Your task to perform on an android device: Search for vegetarian restaurants on Maps Image 0: 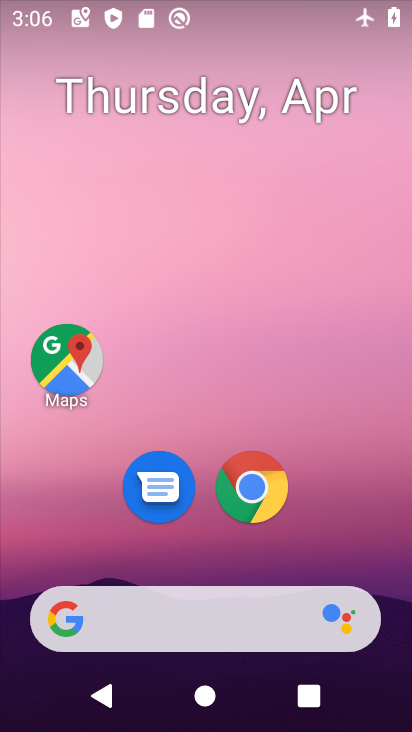
Step 0: drag from (229, 566) to (257, 63)
Your task to perform on an android device: Search for vegetarian restaurants on Maps Image 1: 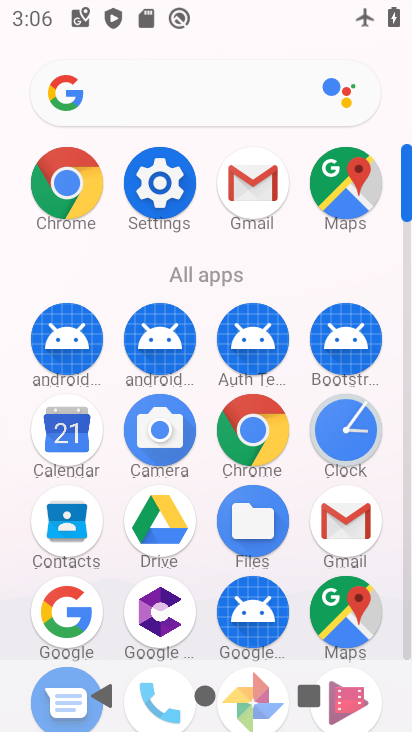
Step 1: click (336, 629)
Your task to perform on an android device: Search for vegetarian restaurants on Maps Image 2: 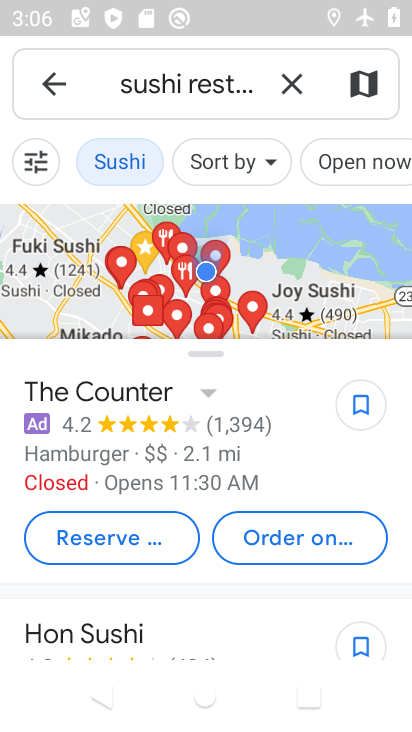
Step 2: click (294, 70)
Your task to perform on an android device: Search for vegetarian restaurants on Maps Image 3: 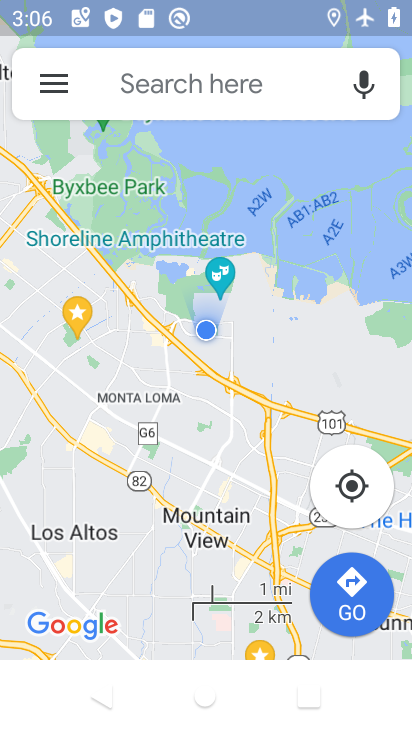
Step 3: click (253, 87)
Your task to perform on an android device: Search for vegetarian restaurants on Maps Image 4: 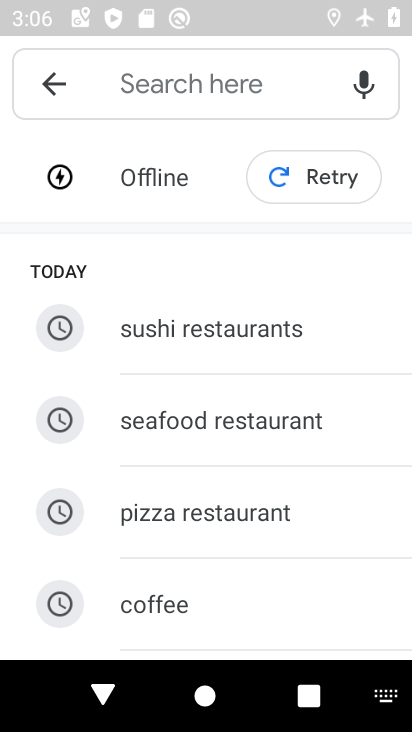
Step 4: type "vegetarian restaurants"
Your task to perform on an android device: Search for vegetarian restaurants on Maps Image 5: 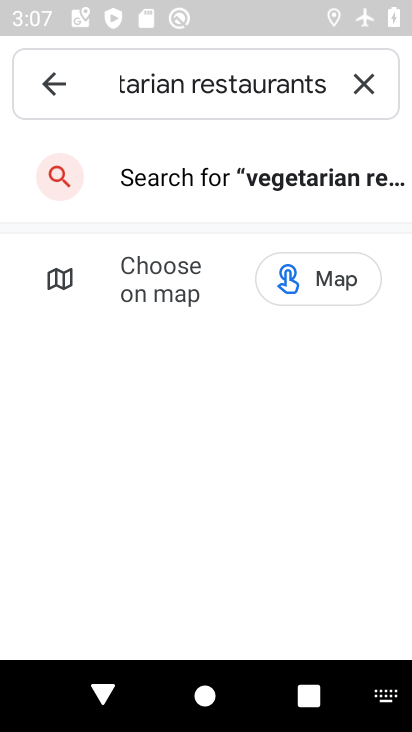
Step 5: task complete